Your task to perform on an android device: change the clock display to show seconds Image 0: 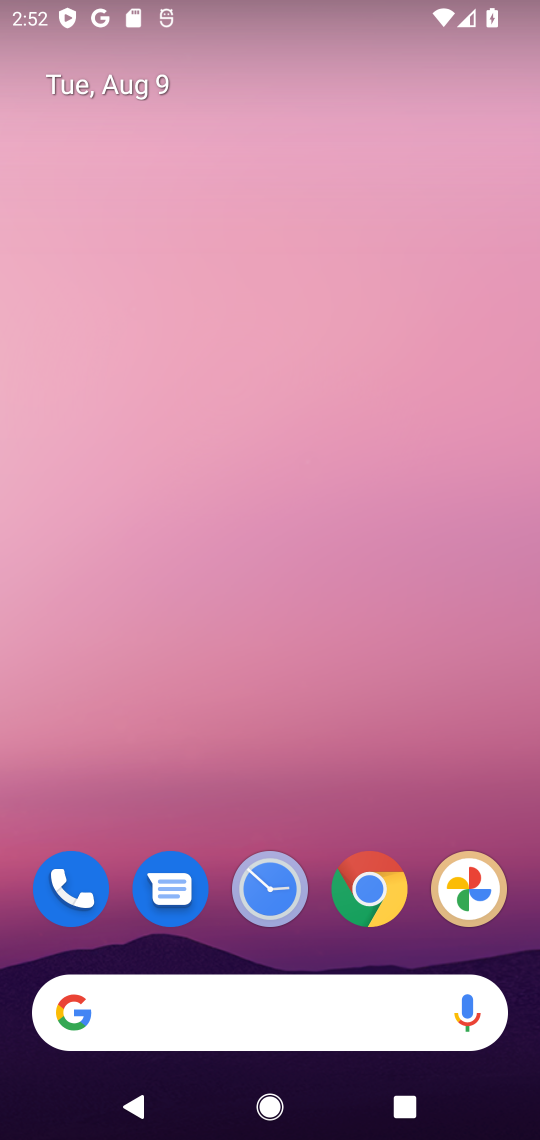
Step 0: click (279, 886)
Your task to perform on an android device: change the clock display to show seconds Image 1: 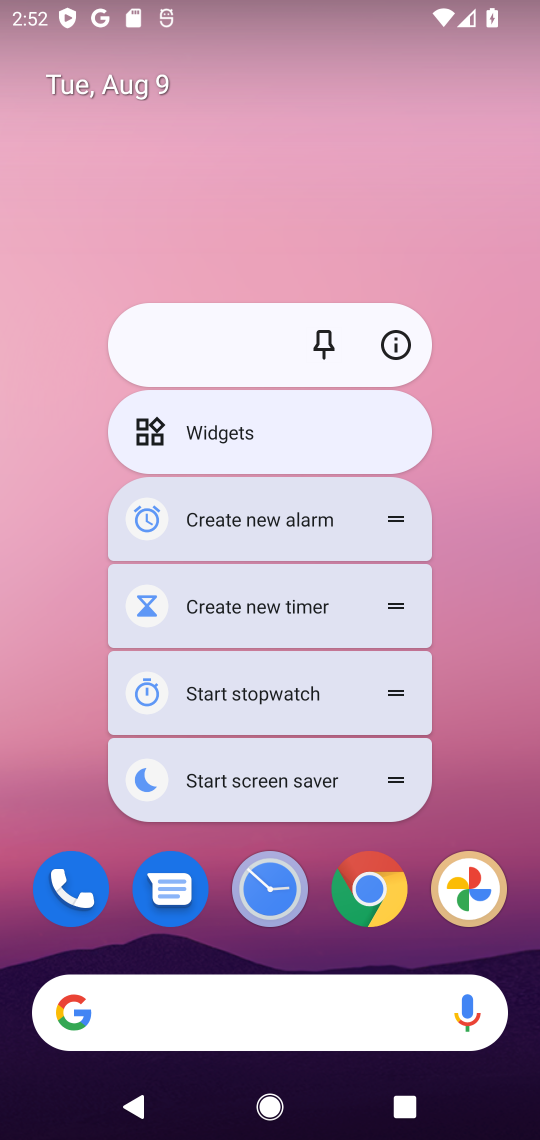
Step 1: click (279, 884)
Your task to perform on an android device: change the clock display to show seconds Image 2: 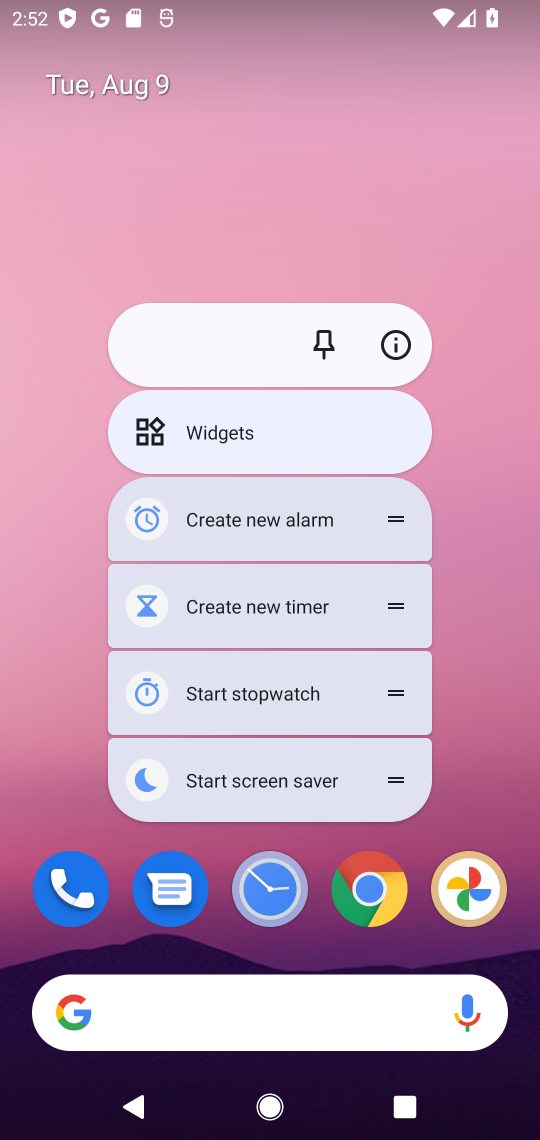
Step 2: click (279, 884)
Your task to perform on an android device: change the clock display to show seconds Image 3: 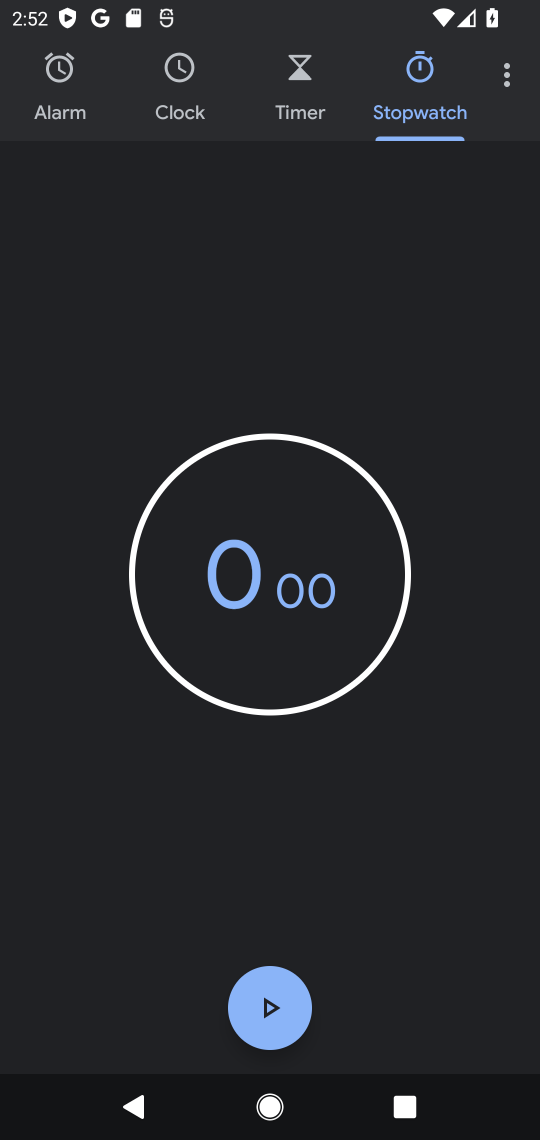
Step 3: click (509, 81)
Your task to perform on an android device: change the clock display to show seconds Image 4: 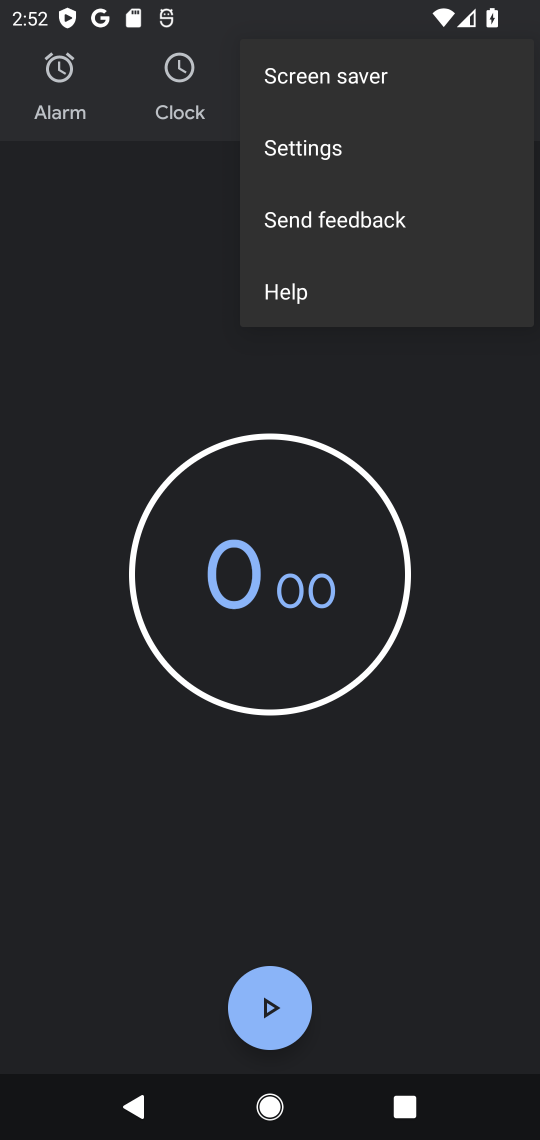
Step 4: click (391, 147)
Your task to perform on an android device: change the clock display to show seconds Image 5: 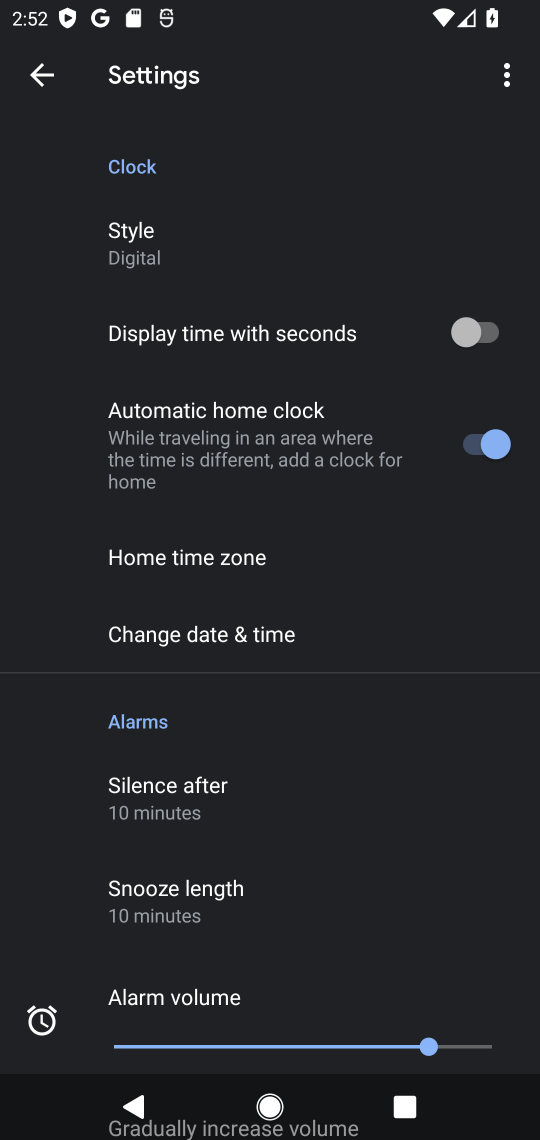
Step 5: click (474, 325)
Your task to perform on an android device: change the clock display to show seconds Image 6: 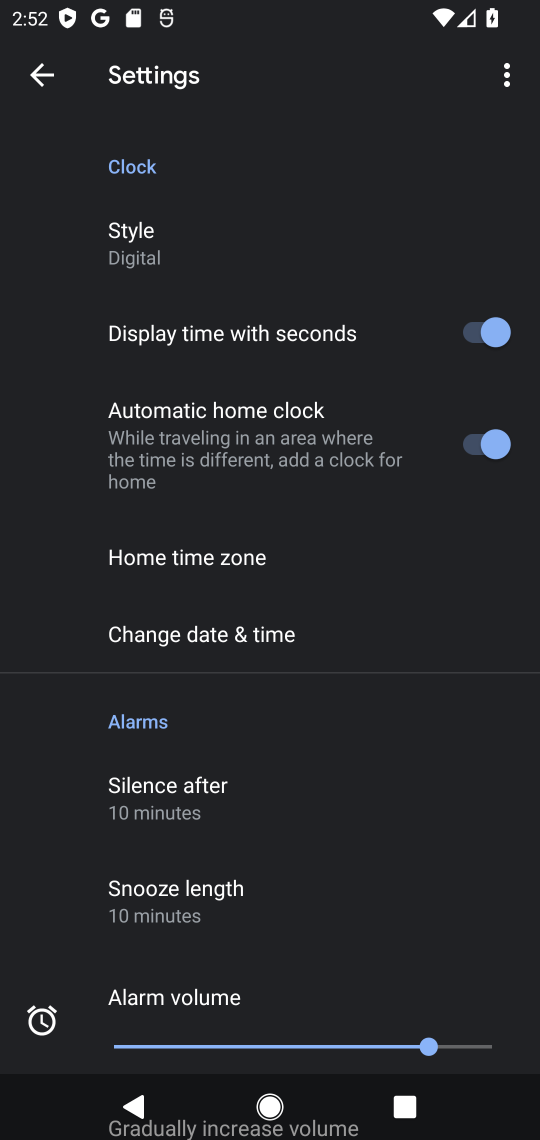
Step 6: click (37, 81)
Your task to perform on an android device: change the clock display to show seconds Image 7: 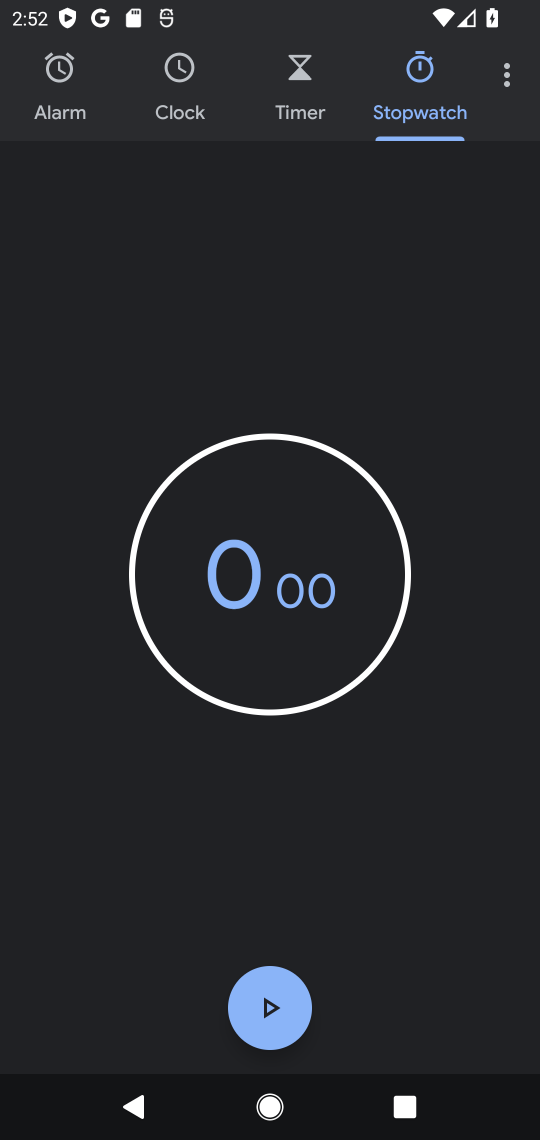
Step 7: click (177, 82)
Your task to perform on an android device: change the clock display to show seconds Image 8: 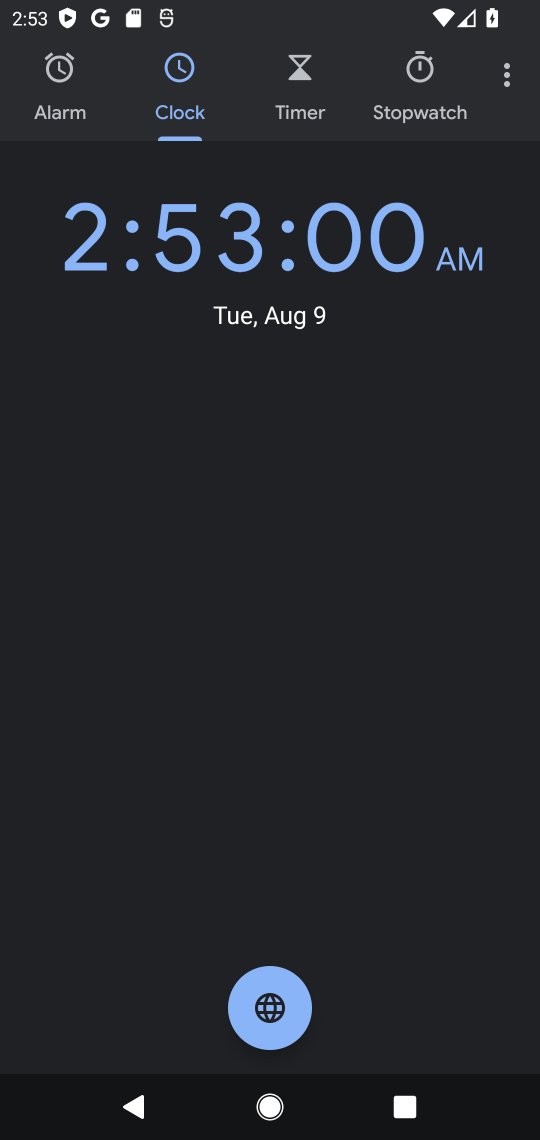
Step 8: task complete